Your task to perform on an android device: change notification settings in the gmail app Image 0: 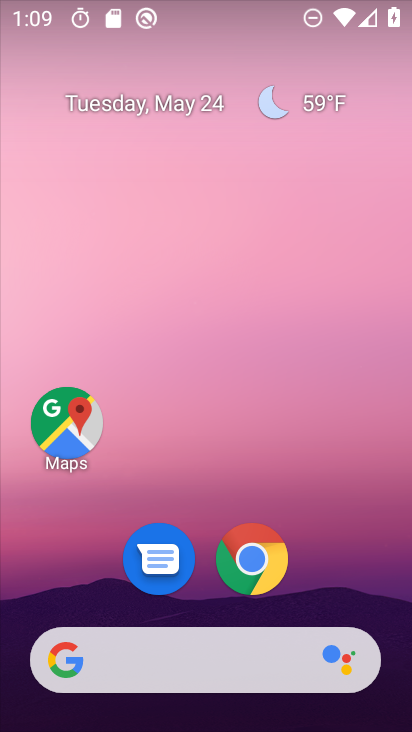
Step 0: drag from (395, 712) to (397, 214)
Your task to perform on an android device: change notification settings in the gmail app Image 1: 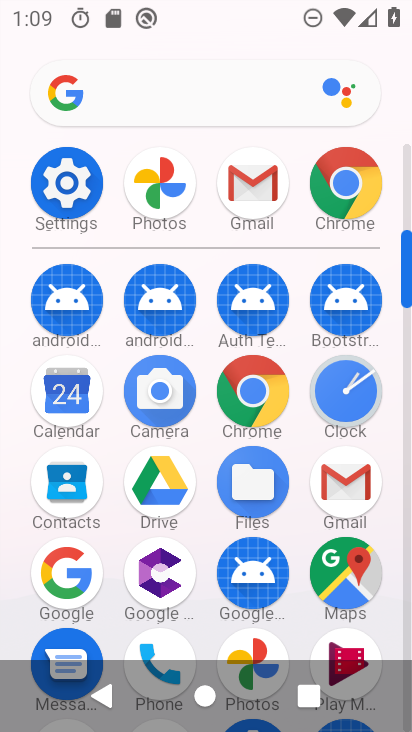
Step 1: click (342, 479)
Your task to perform on an android device: change notification settings in the gmail app Image 2: 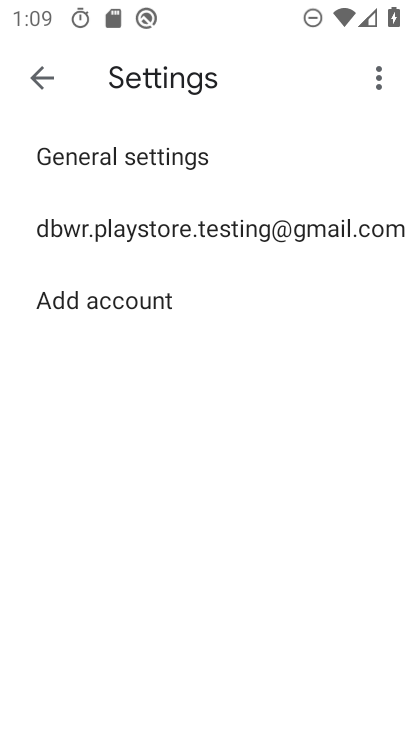
Step 2: click (125, 152)
Your task to perform on an android device: change notification settings in the gmail app Image 3: 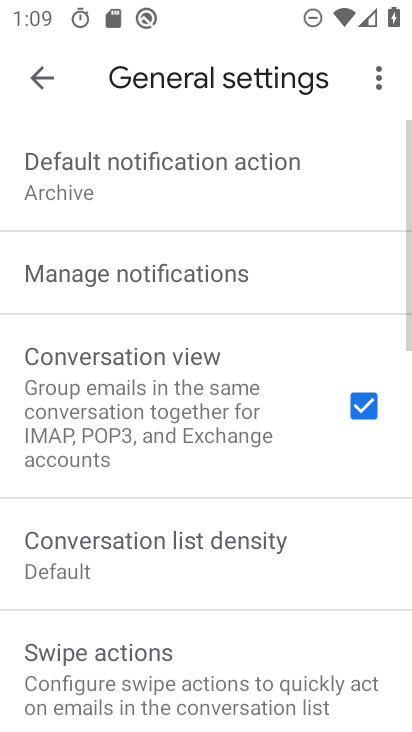
Step 3: click (129, 265)
Your task to perform on an android device: change notification settings in the gmail app Image 4: 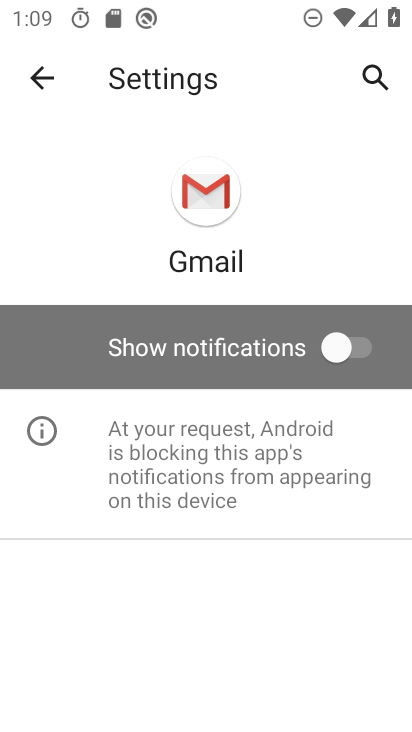
Step 4: click (360, 340)
Your task to perform on an android device: change notification settings in the gmail app Image 5: 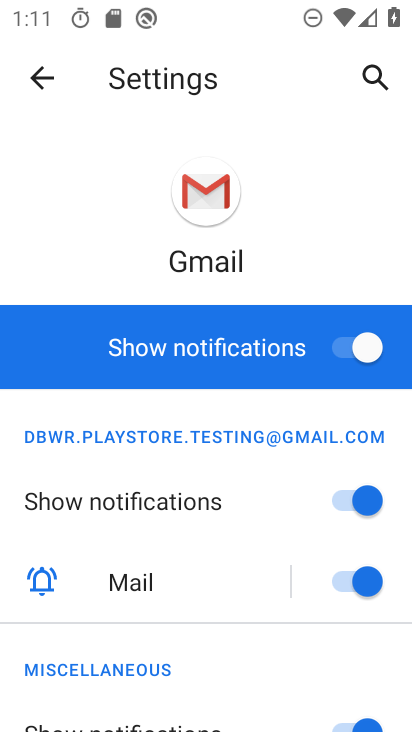
Step 5: task complete